Your task to perform on an android device: Check the weather Image 0: 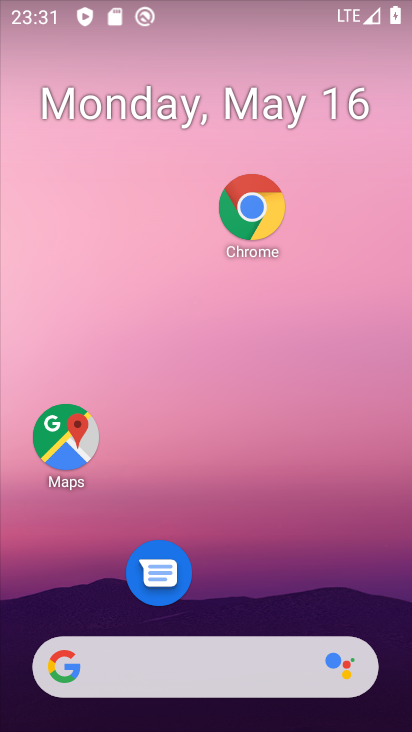
Step 0: drag from (233, 653) to (169, 47)
Your task to perform on an android device: Check the weather Image 1: 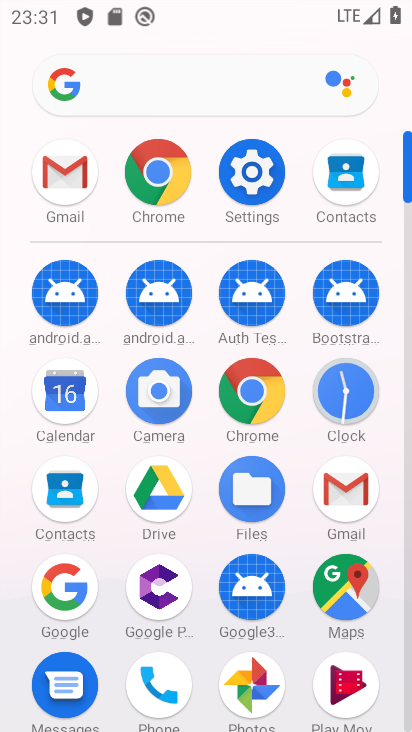
Step 1: press home button
Your task to perform on an android device: Check the weather Image 2: 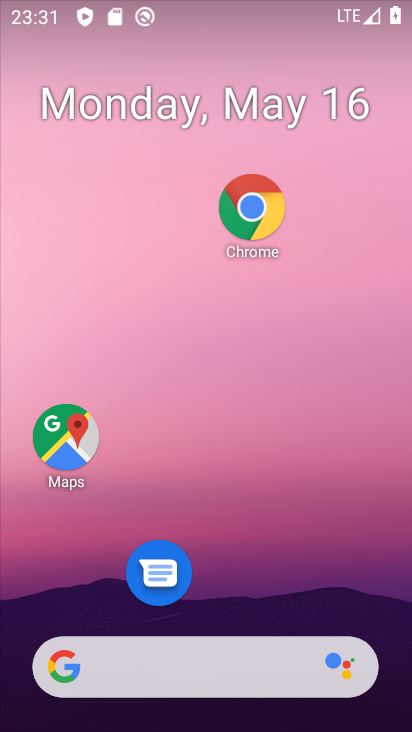
Step 2: drag from (54, 330) to (411, 333)
Your task to perform on an android device: Check the weather Image 3: 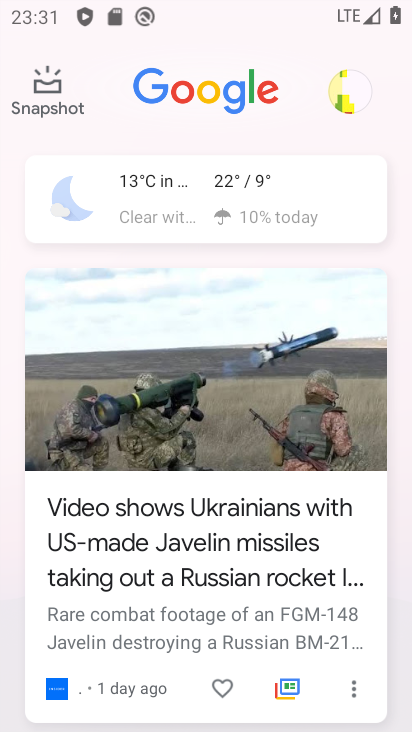
Step 3: click (199, 205)
Your task to perform on an android device: Check the weather Image 4: 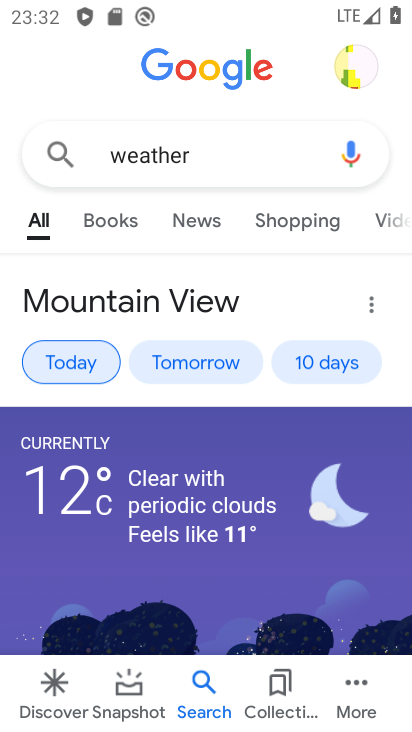
Step 4: task complete